Your task to perform on an android device: check storage Image 0: 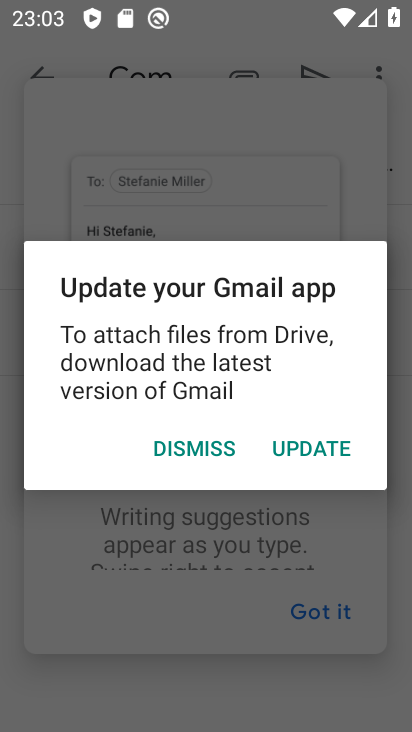
Step 0: press home button
Your task to perform on an android device: check storage Image 1: 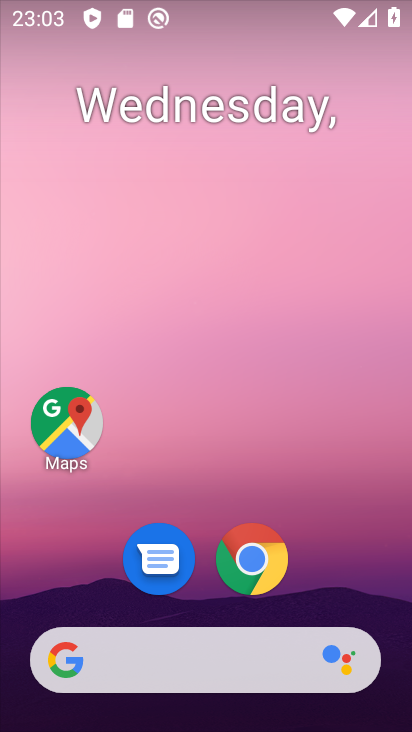
Step 1: drag from (198, 599) to (246, 113)
Your task to perform on an android device: check storage Image 2: 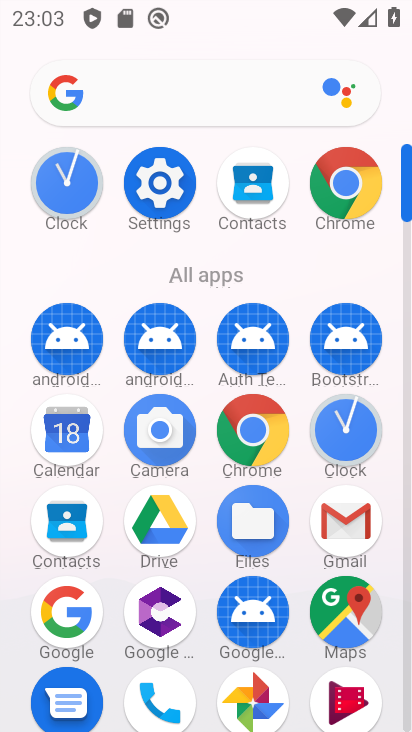
Step 2: click (160, 186)
Your task to perform on an android device: check storage Image 3: 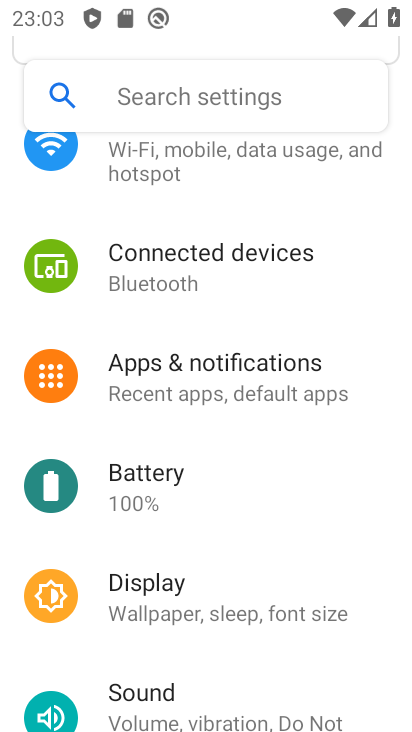
Step 3: drag from (219, 215) to (220, 269)
Your task to perform on an android device: check storage Image 4: 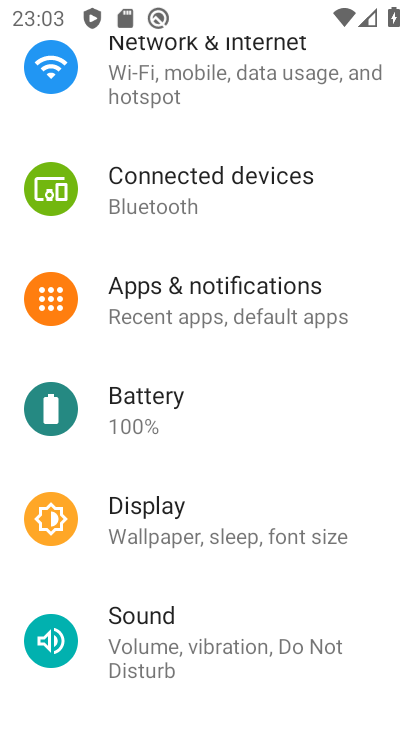
Step 4: drag from (187, 585) to (262, 248)
Your task to perform on an android device: check storage Image 5: 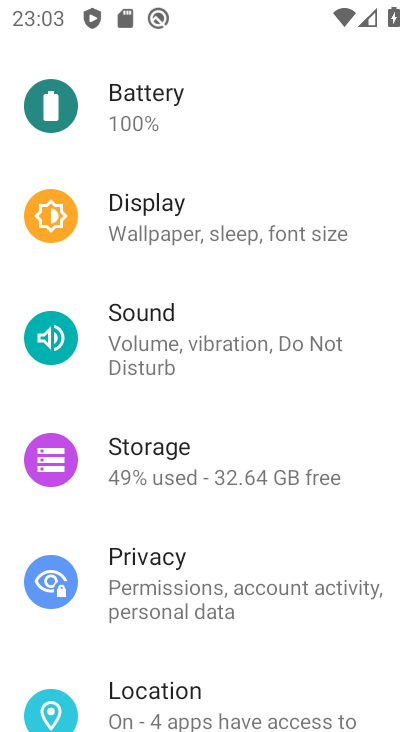
Step 5: click (175, 456)
Your task to perform on an android device: check storage Image 6: 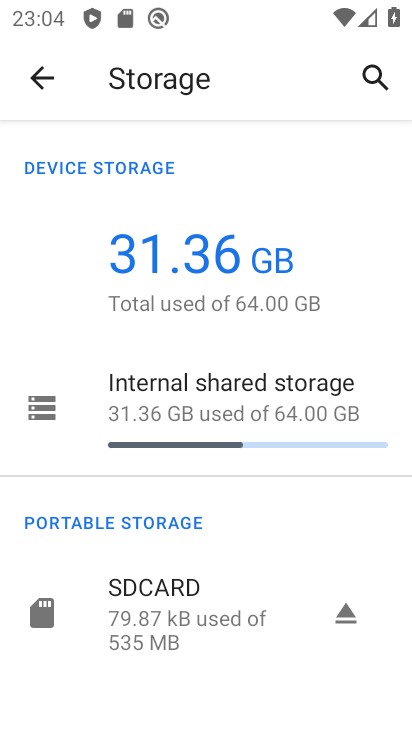
Step 6: task complete